Your task to perform on an android device: Add jbl charge 4 to the cart on bestbuy Image 0: 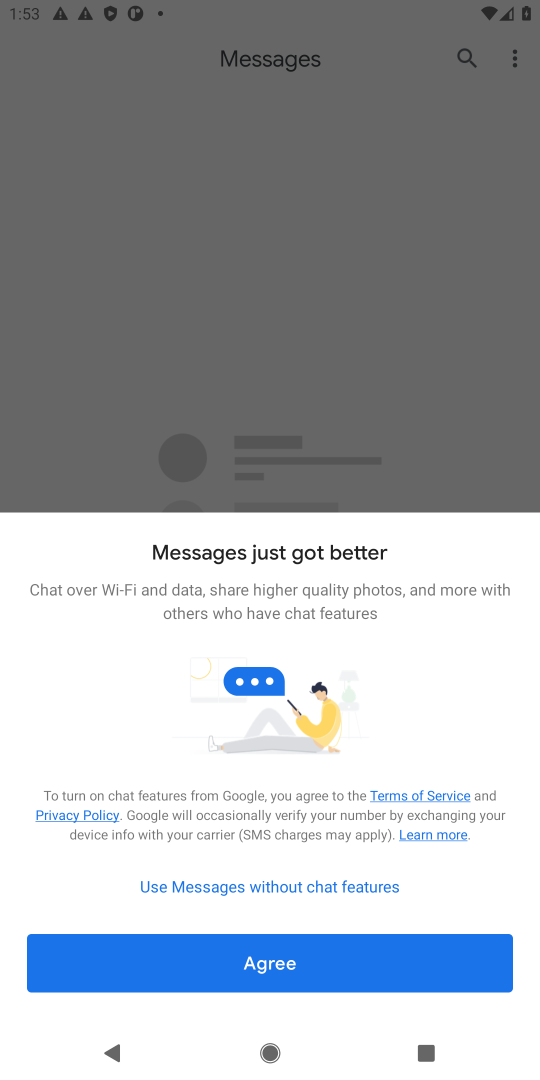
Step 0: press home button
Your task to perform on an android device: Add jbl charge 4 to the cart on bestbuy Image 1: 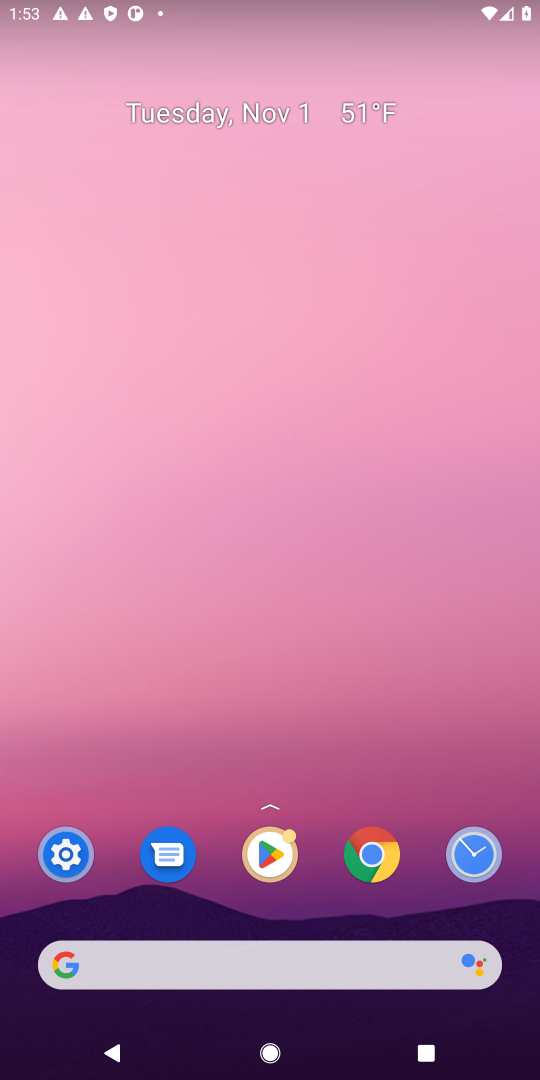
Step 1: click (183, 973)
Your task to perform on an android device: Add jbl charge 4 to the cart on bestbuy Image 2: 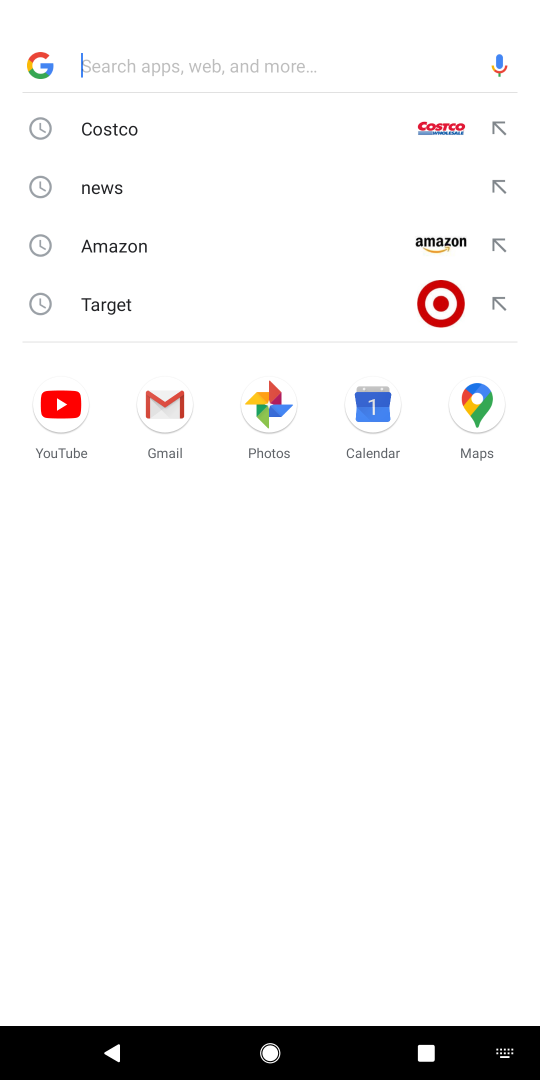
Step 2: type "bestbuy"
Your task to perform on an android device: Add jbl charge 4 to the cart on bestbuy Image 3: 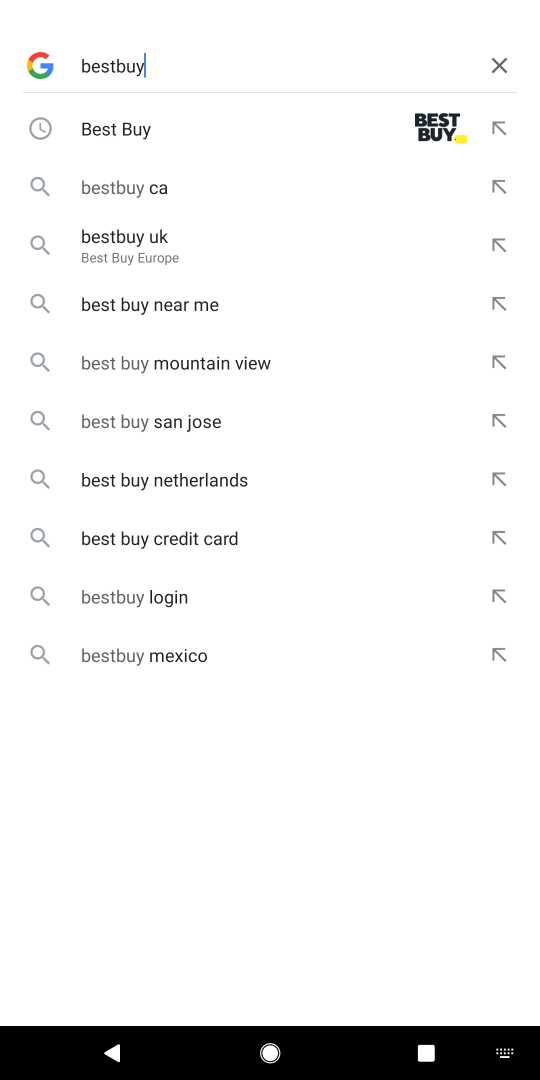
Step 3: click (127, 125)
Your task to perform on an android device: Add jbl charge 4 to the cart on bestbuy Image 4: 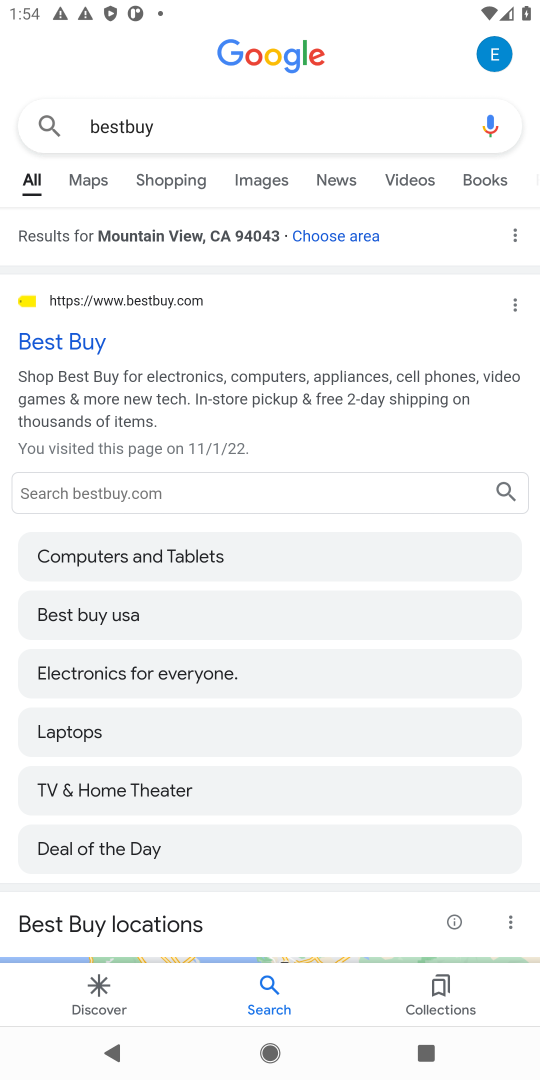
Step 4: click (64, 335)
Your task to perform on an android device: Add jbl charge 4 to the cart on bestbuy Image 5: 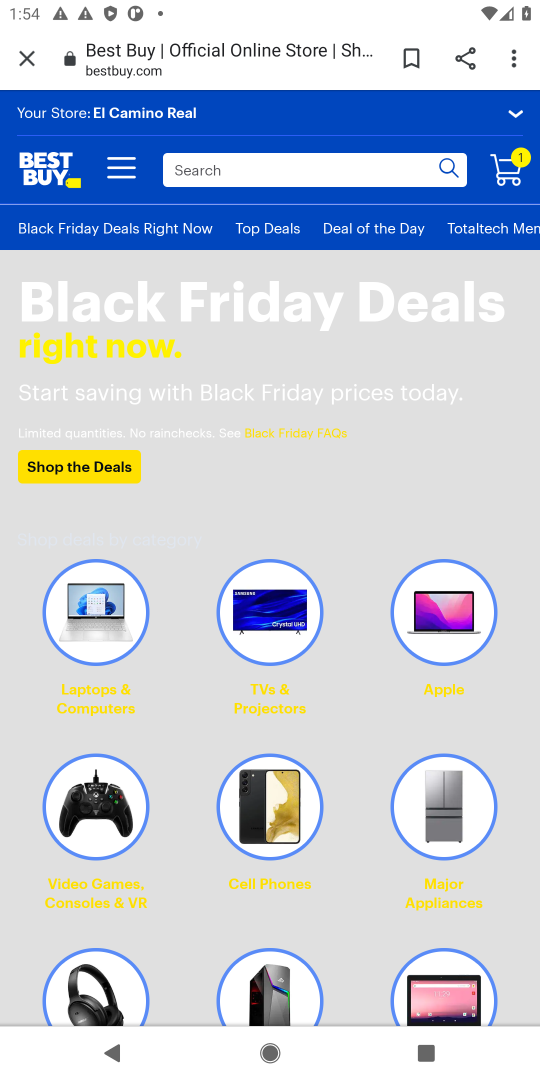
Step 5: click (250, 172)
Your task to perform on an android device: Add jbl charge 4 to the cart on bestbuy Image 6: 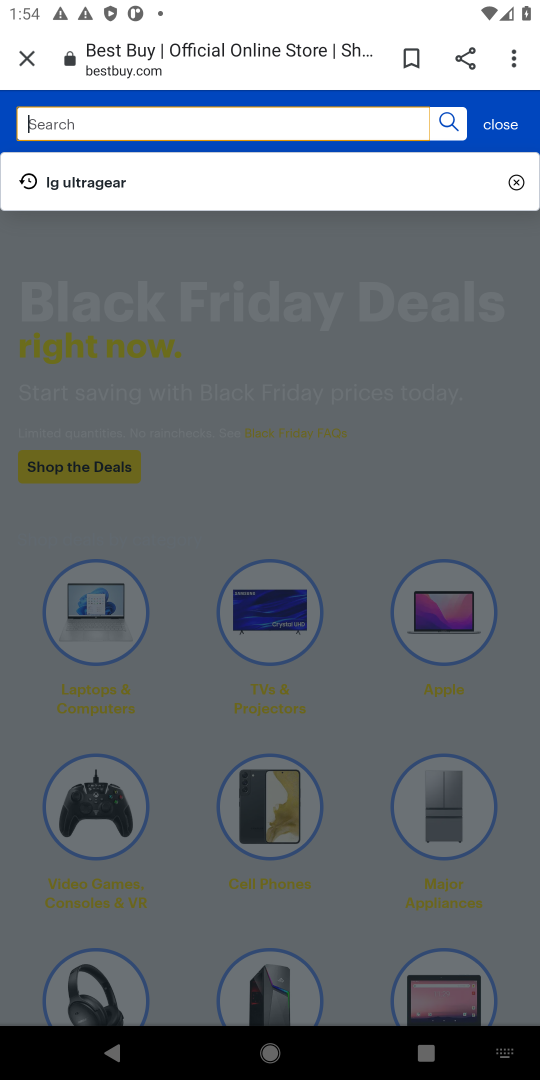
Step 6: type "jbl charger 4"
Your task to perform on an android device: Add jbl charge 4 to the cart on bestbuy Image 7: 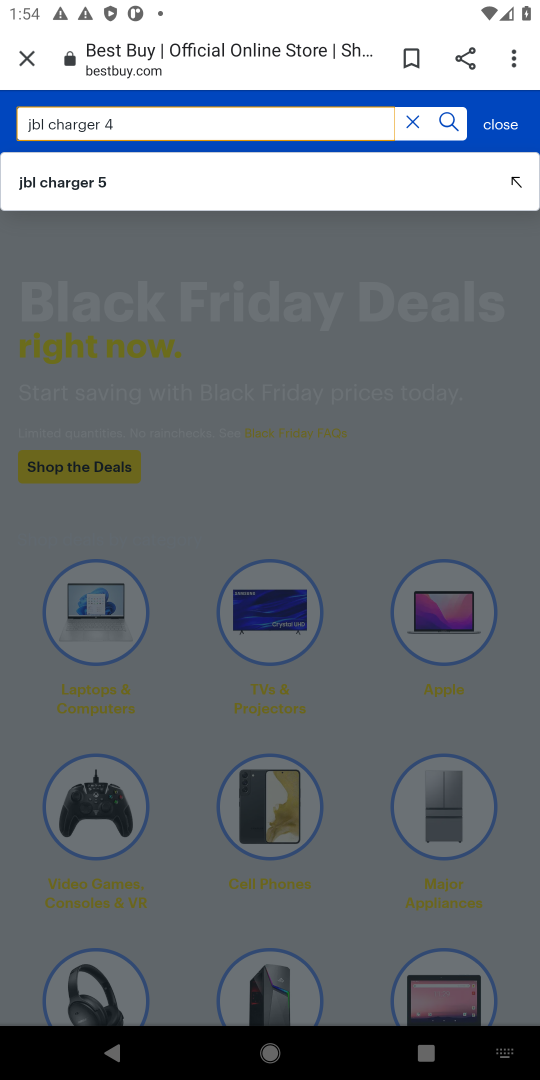
Step 7: click (447, 120)
Your task to perform on an android device: Add jbl charge 4 to the cart on bestbuy Image 8: 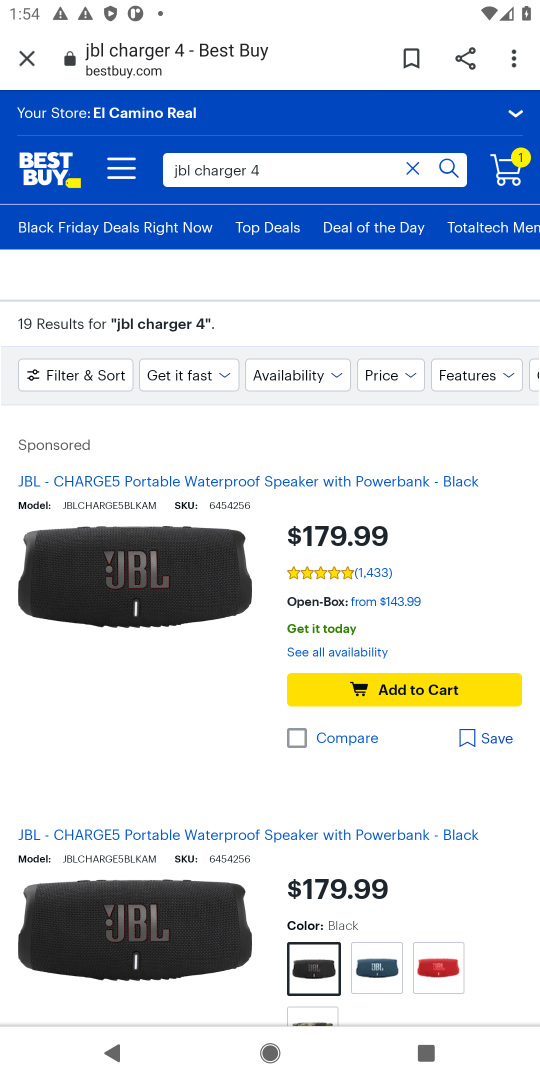
Step 8: click (414, 684)
Your task to perform on an android device: Add jbl charge 4 to the cart on bestbuy Image 9: 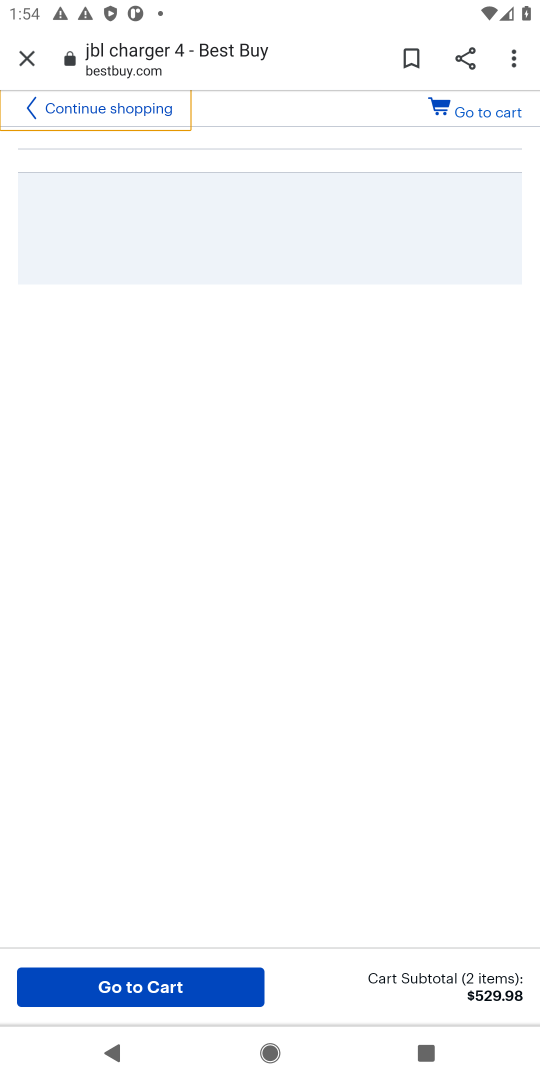
Step 9: task complete